Your task to perform on an android device: Open calendar and show me the third week of next month Image 0: 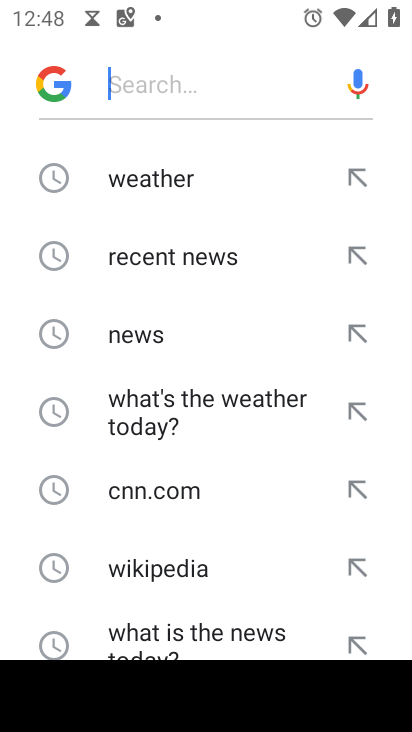
Step 0: press home button
Your task to perform on an android device: Open calendar and show me the third week of next month Image 1: 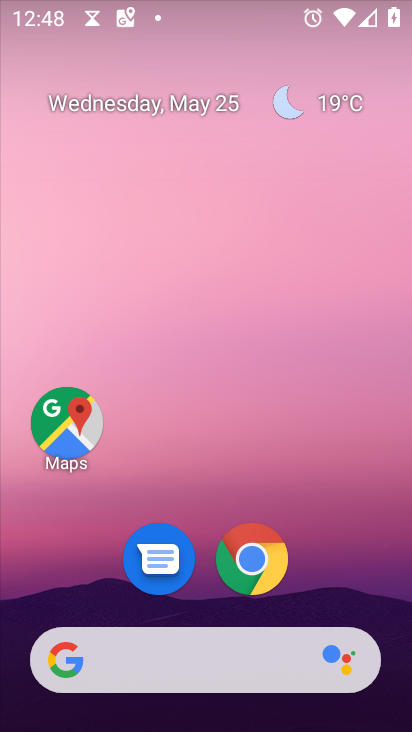
Step 1: drag from (349, 578) to (254, 87)
Your task to perform on an android device: Open calendar and show me the third week of next month Image 2: 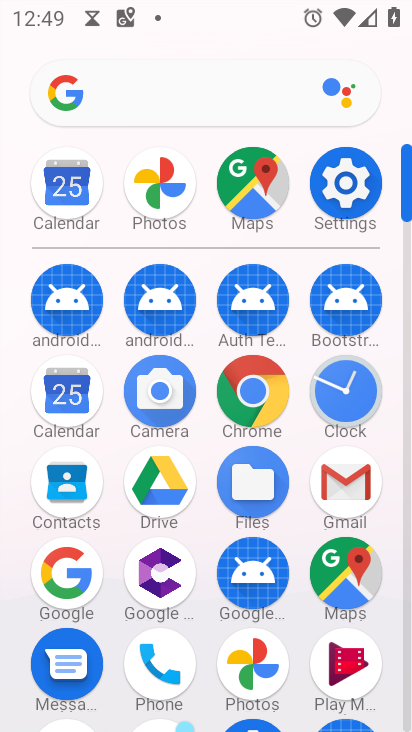
Step 2: click (66, 403)
Your task to perform on an android device: Open calendar and show me the third week of next month Image 3: 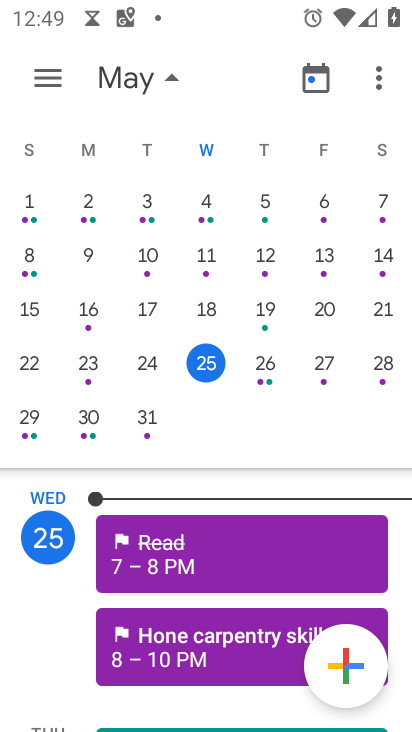
Step 3: drag from (369, 317) to (39, 272)
Your task to perform on an android device: Open calendar and show me the third week of next month Image 4: 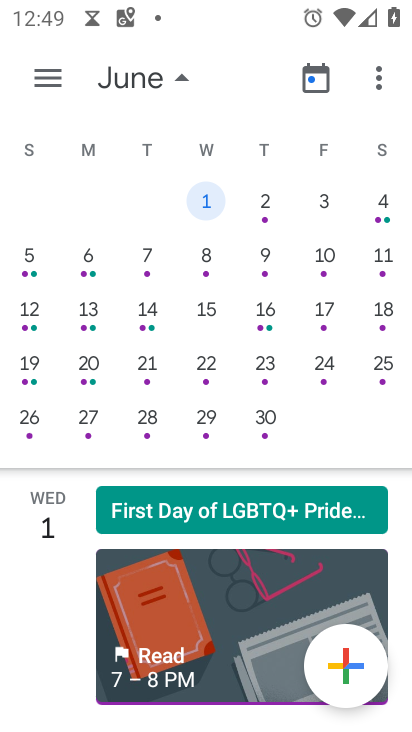
Step 4: click (148, 366)
Your task to perform on an android device: Open calendar and show me the third week of next month Image 5: 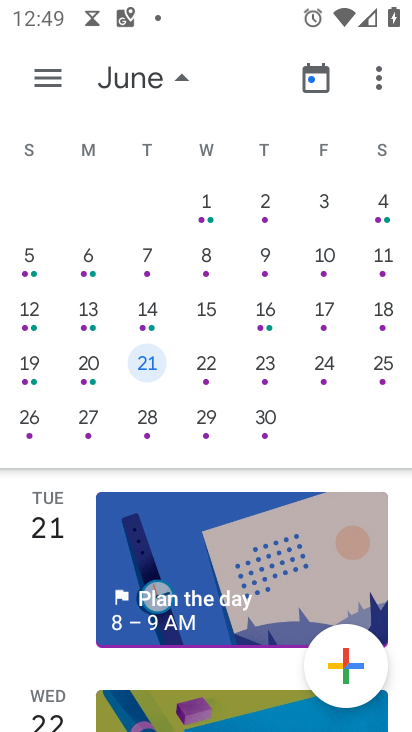
Step 5: task complete